Your task to perform on an android device: Is it going to rain tomorrow? Image 0: 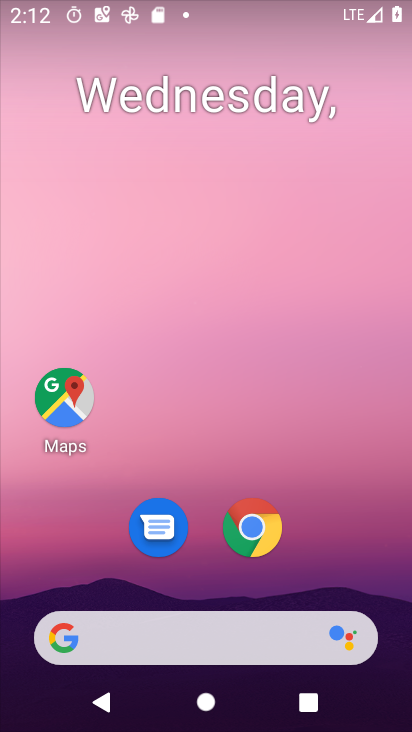
Step 0: click (198, 602)
Your task to perform on an android device: Is it going to rain tomorrow? Image 1: 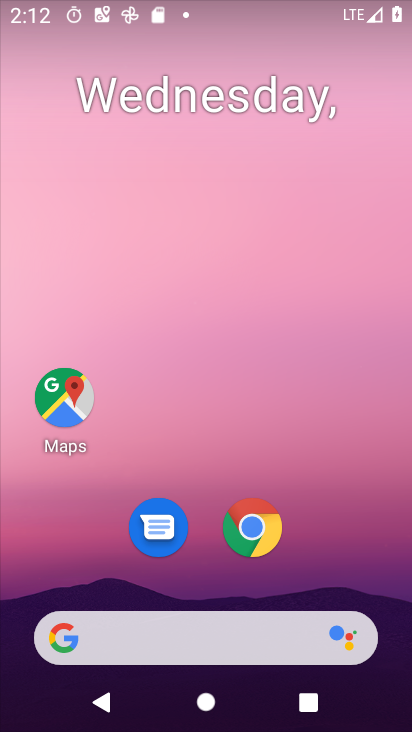
Step 1: drag from (86, 135) to (411, 116)
Your task to perform on an android device: Is it going to rain tomorrow? Image 2: 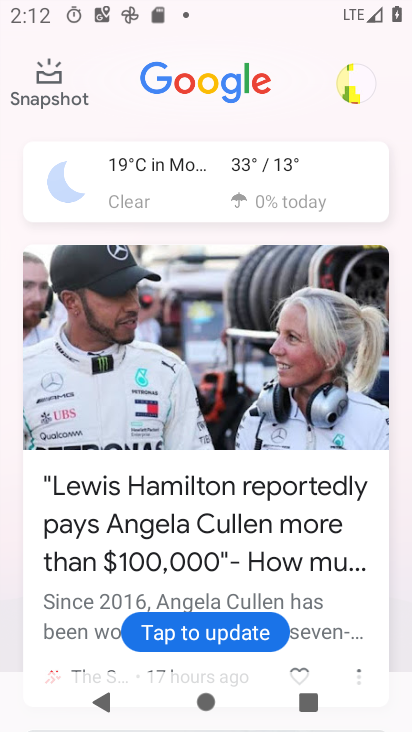
Step 2: click (102, 186)
Your task to perform on an android device: Is it going to rain tomorrow? Image 3: 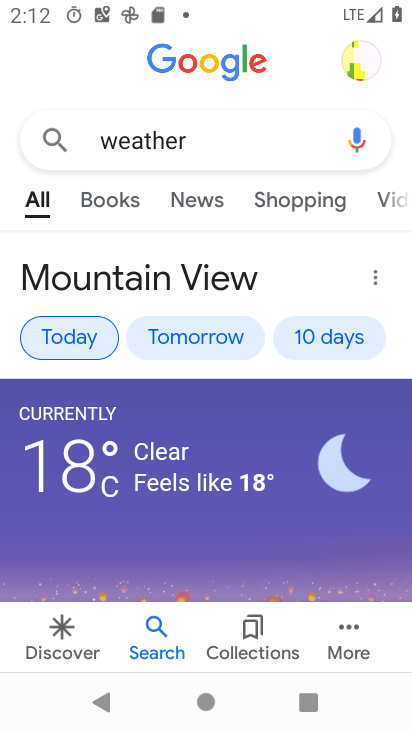
Step 3: click (220, 341)
Your task to perform on an android device: Is it going to rain tomorrow? Image 4: 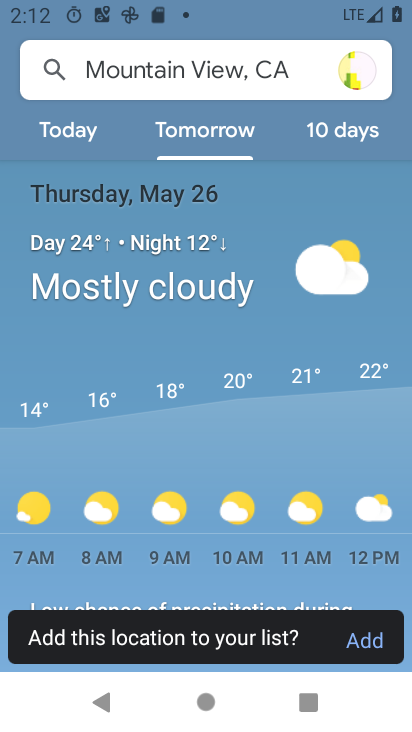
Step 4: task complete